Your task to perform on an android device: Go to calendar. Show me events next week Image 0: 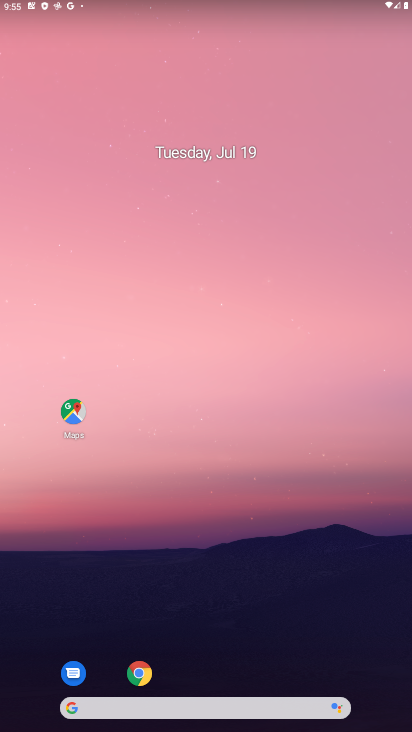
Step 0: drag from (266, 663) to (253, 323)
Your task to perform on an android device: Go to calendar. Show me events next week Image 1: 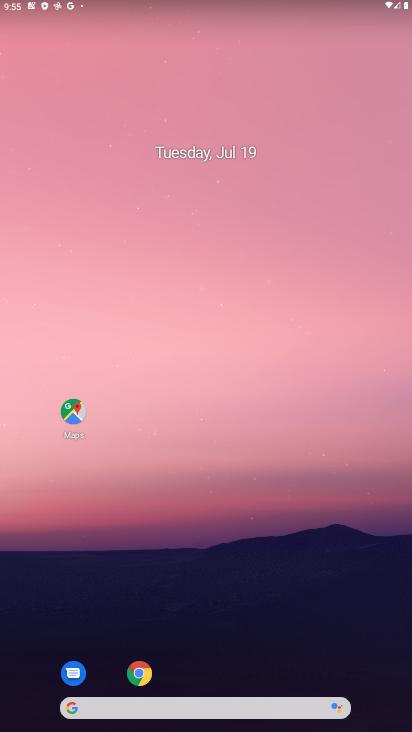
Step 1: task complete